Your task to perform on an android device: Open Google Chrome and click the shortcut for Amazon.com Image 0: 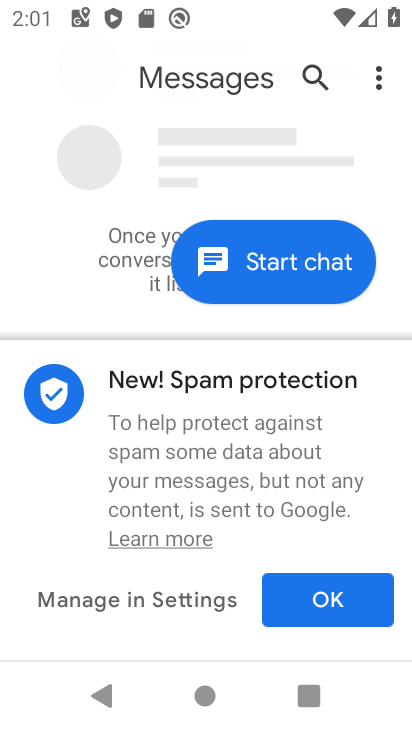
Step 0: press home button
Your task to perform on an android device: Open Google Chrome and click the shortcut for Amazon.com Image 1: 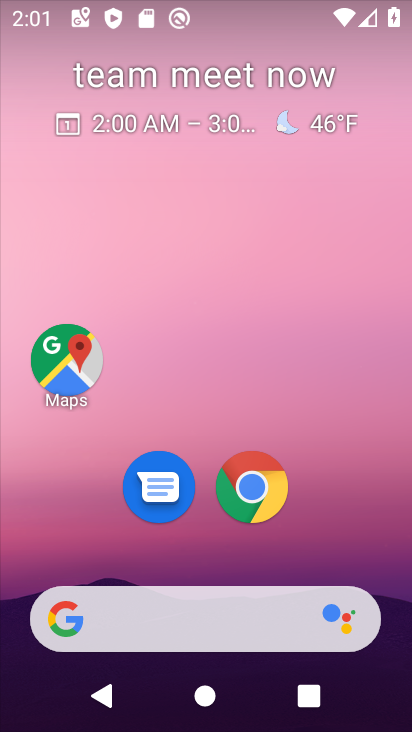
Step 1: click (261, 483)
Your task to perform on an android device: Open Google Chrome and click the shortcut for Amazon.com Image 2: 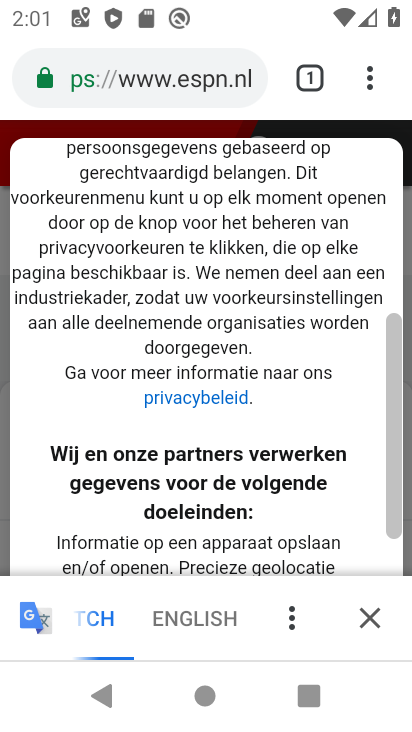
Step 2: click (217, 69)
Your task to perform on an android device: Open Google Chrome and click the shortcut for Amazon.com Image 3: 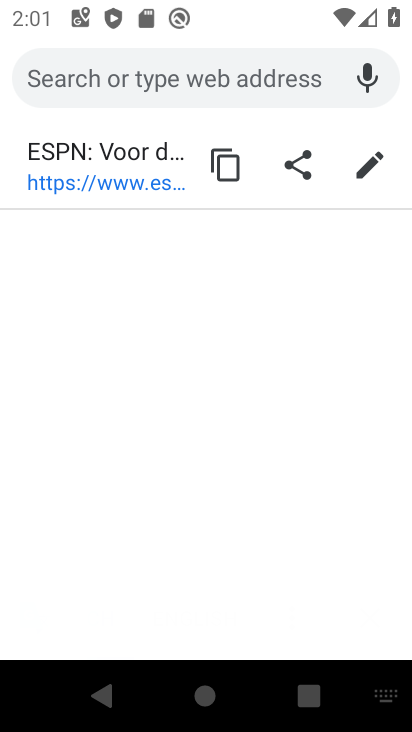
Step 3: type "amazom"
Your task to perform on an android device: Open Google Chrome and click the shortcut for Amazon.com Image 4: 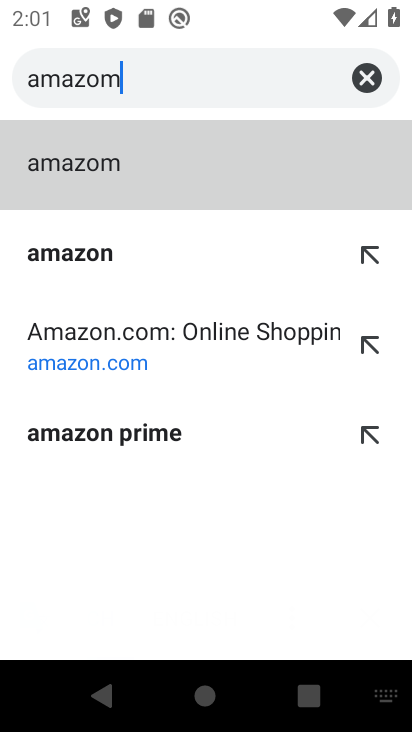
Step 4: click (62, 363)
Your task to perform on an android device: Open Google Chrome and click the shortcut for Amazon.com Image 5: 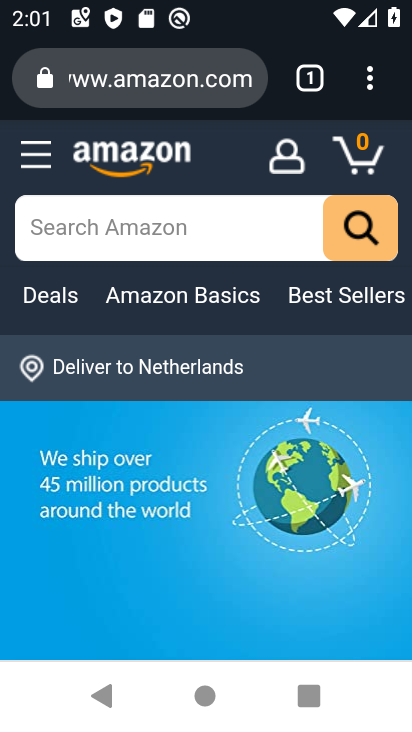
Step 5: task complete